Your task to perform on an android device: What's the weather today? Image 0: 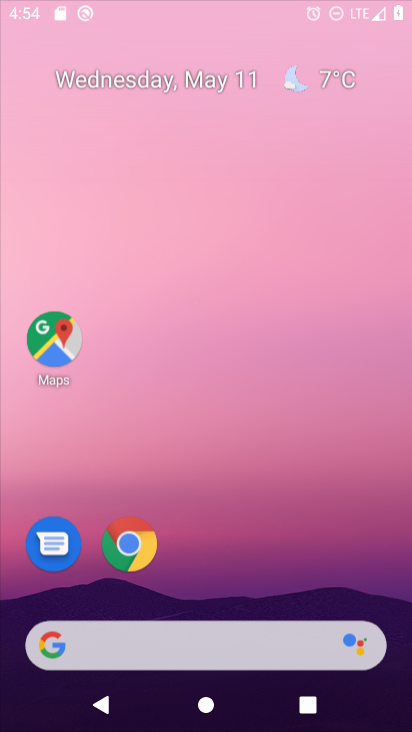
Step 0: drag from (291, 395) to (304, 52)
Your task to perform on an android device: What's the weather today? Image 1: 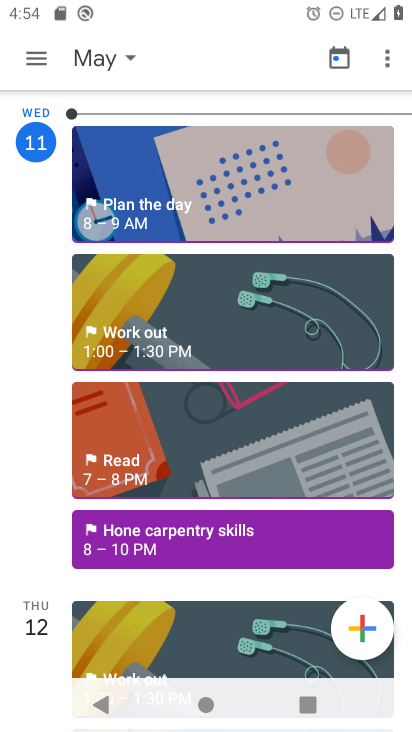
Step 1: press home button
Your task to perform on an android device: What's the weather today? Image 2: 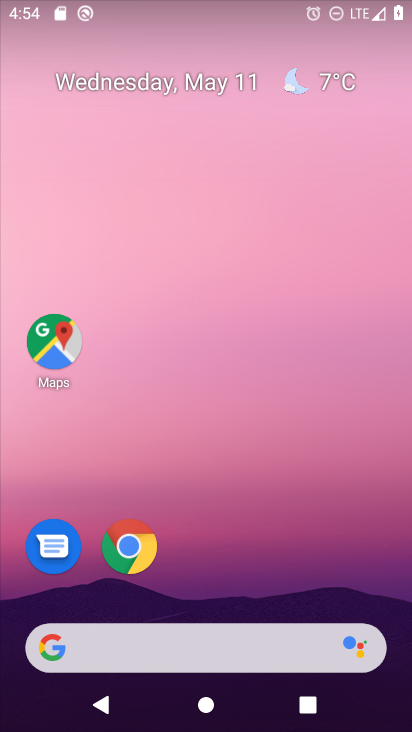
Step 2: drag from (104, 653) to (274, 0)
Your task to perform on an android device: What's the weather today? Image 3: 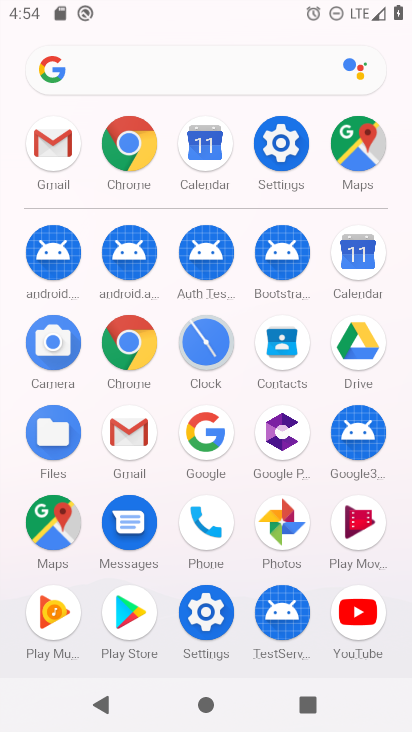
Step 3: click (126, 334)
Your task to perform on an android device: What's the weather today? Image 4: 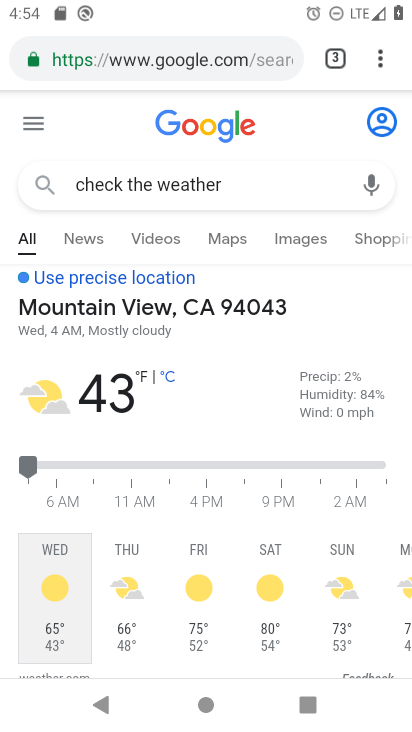
Step 4: click (202, 64)
Your task to perform on an android device: What's the weather today? Image 5: 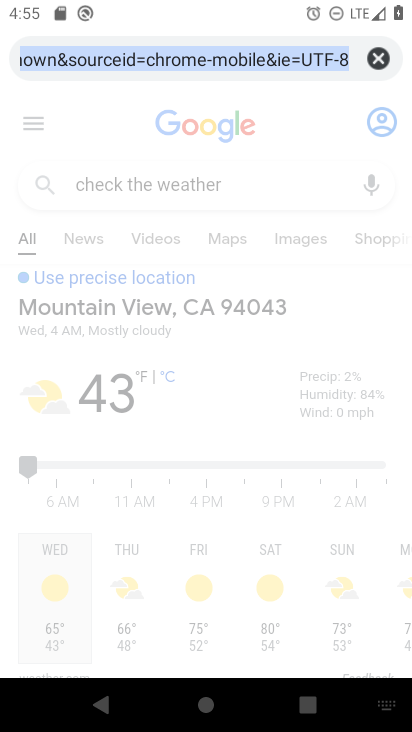
Step 5: click (375, 57)
Your task to perform on an android device: What's the weather today? Image 6: 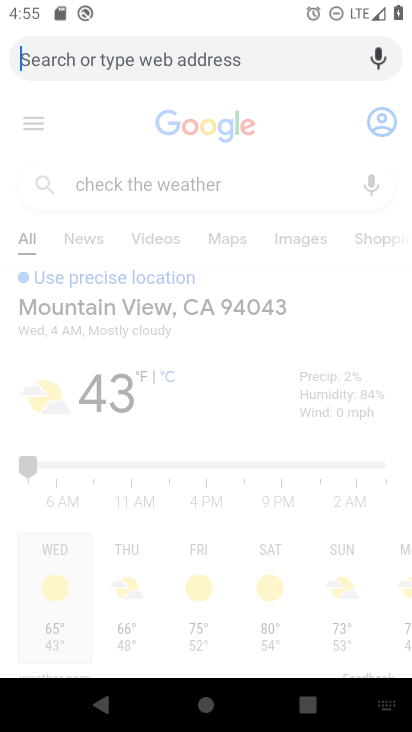
Step 6: type "weather today"
Your task to perform on an android device: What's the weather today? Image 7: 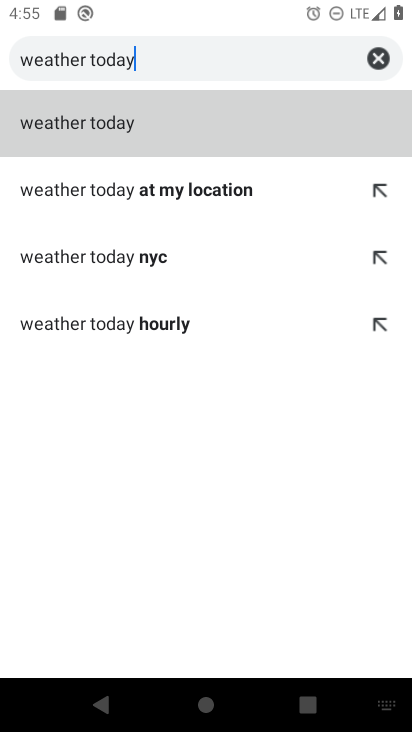
Step 7: click (196, 131)
Your task to perform on an android device: What's the weather today? Image 8: 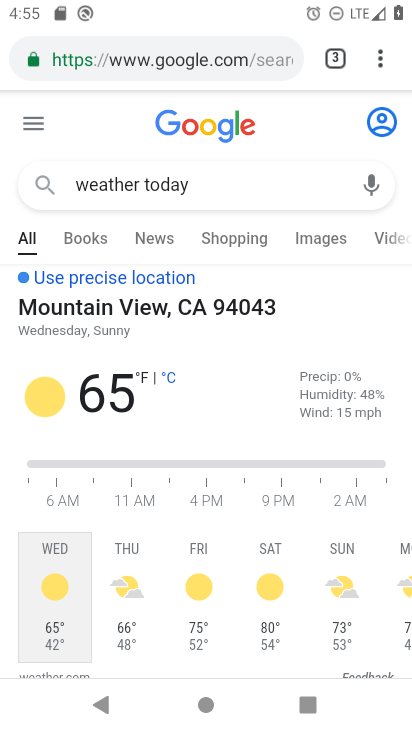
Step 8: task complete